Your task to perform on an android device: star an email in the gmail app Image 0: 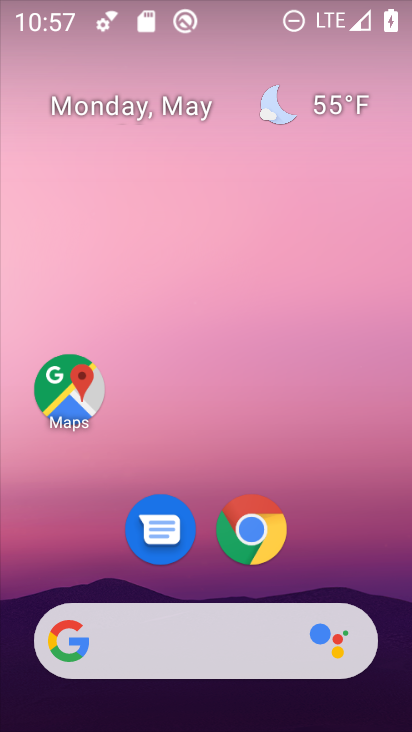
Step 0: drag from (273, 616) to (225, 18)
Your task to perform on an android device: star an email in the gmail app Image 1: 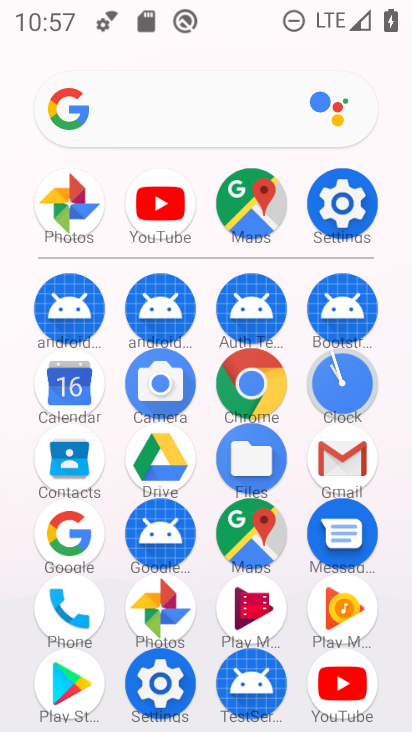
Step 1: click (343, 474)
Your task to perform on an android device: star an email in the gmail app Image 2: 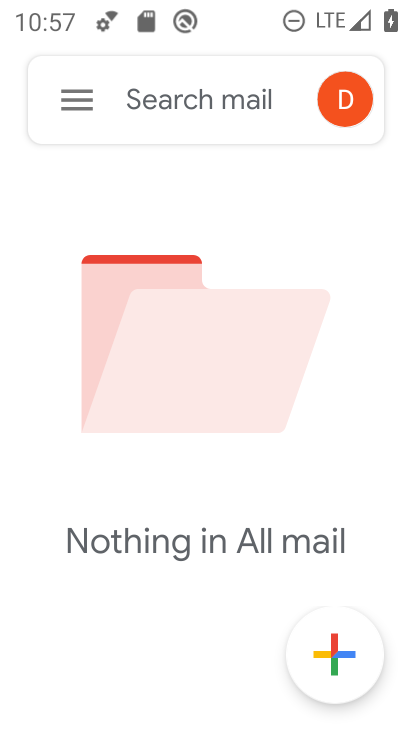
Step 2: click (91, 95)
Your task to perform on an android device: star an email in the gmail app Image 3: 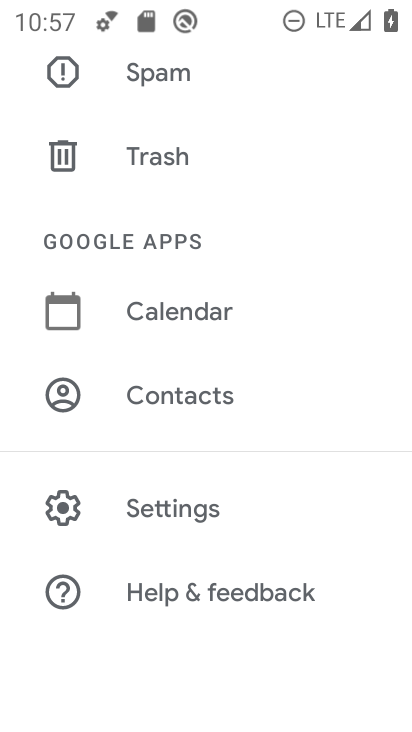
Step 3: drag from (194, 172) to (199, 569)
Your task to perform on an android device: star an email in the gmail app Image 4: 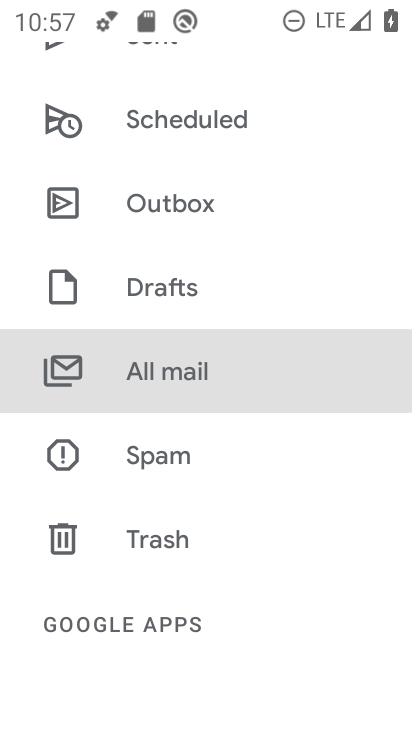
Step 4: click (157, 364)
Your task to perform on an android device: star an email in the gmail app Image 5: 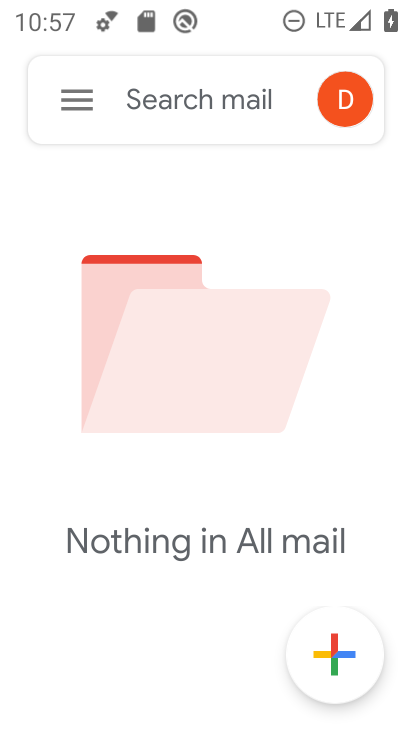
Step 5: task complete